Your task to perform on an android device: manage bookmarks in the chrome app Image 0: 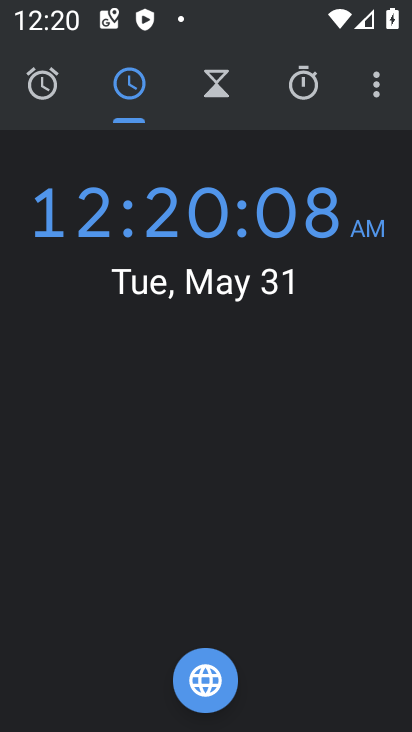
Step 0: press home button
Your task to perform on an android device: manage bookmarks in the chrome app Image 1: 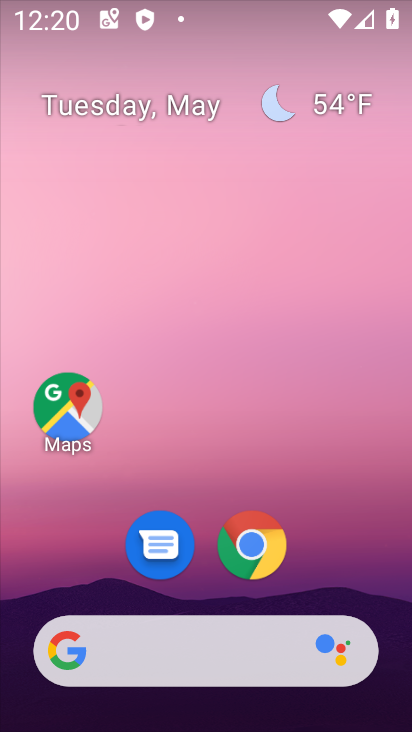
Step 1: click (268, 544)
Your task to perform on an android device: manage bookmarks in the chrome app Image 2: 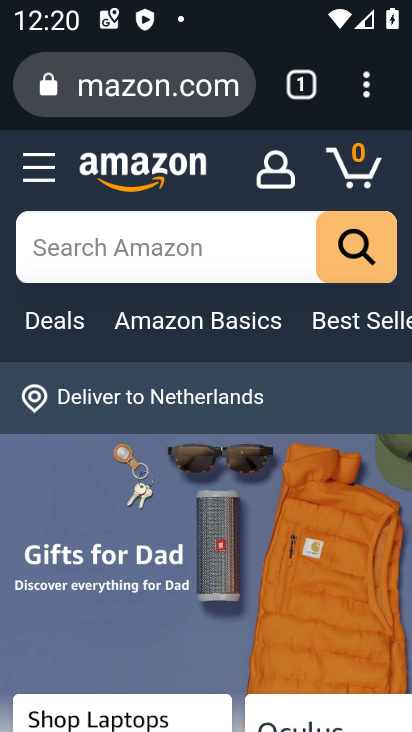
Step 2: click (367, 92)
Your task to perform on an android device: manage bookmarks in the chrome app Image 3: 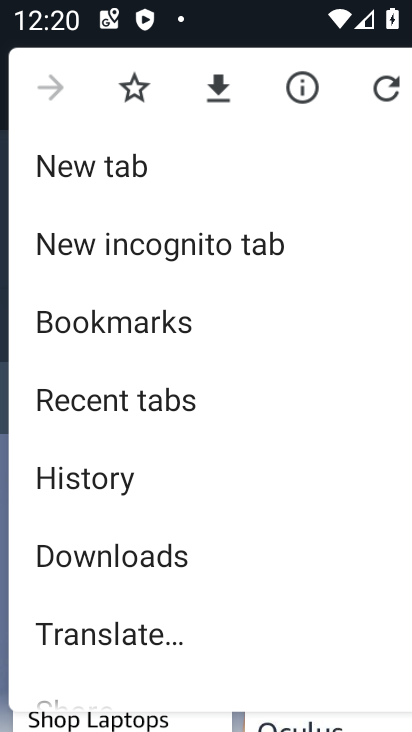
Step 3: drag from (276, 574) to (242, 174)
Your task to perform on an android device: manage bookmarks in the chrome app Image 4: 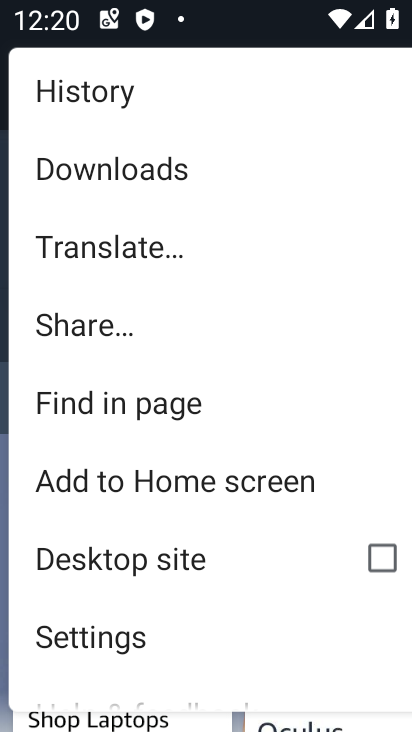
Step 4: click (169, 636)
Your task to perform on an android device: manage bookmarks in the chrome app Image 5: 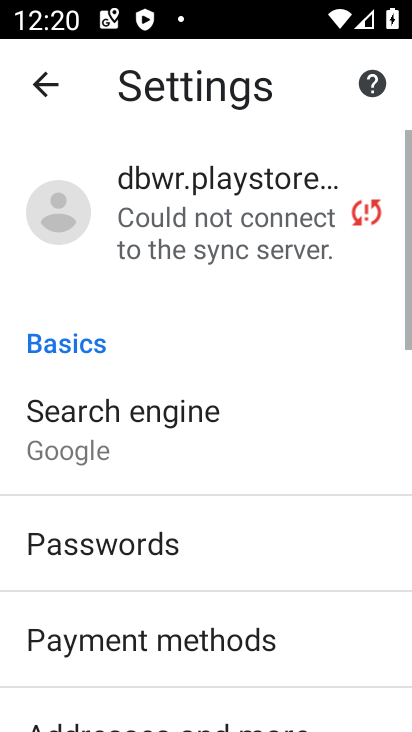
Step 5: drag from (227, 551) to (205, 188)
Your task to perform on an android device: manage bookmarks in the chrome app Image 6: 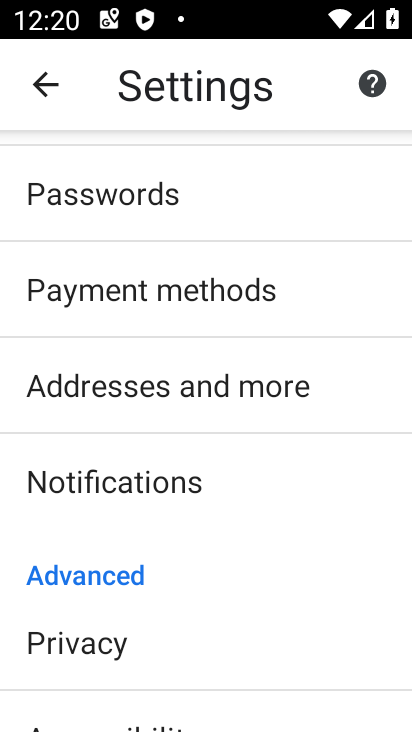
Step 6: click (62, 76)
Your task to perform on an android device: manage bookmarks in the chrome app Image 7: 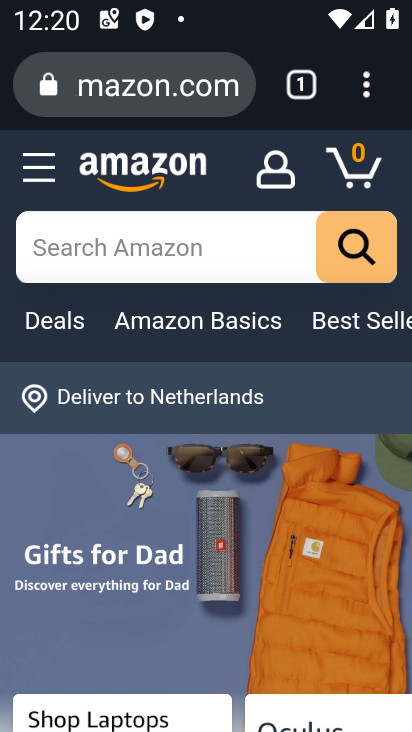
Step 7: click (373, 85)
Your task to perform on an android device: manage bookmarks in the chrome app Image 8: 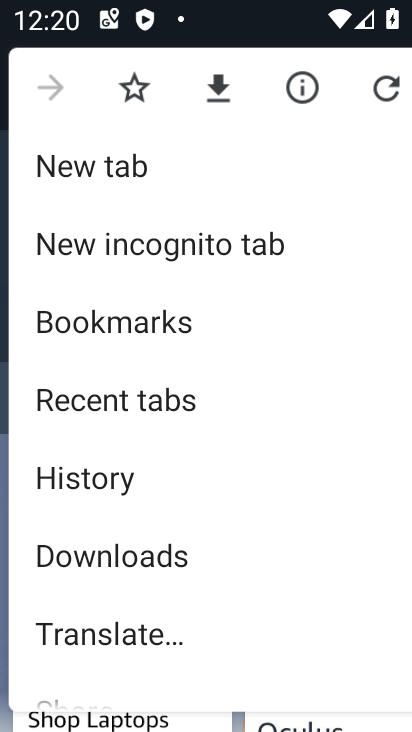
Step 8: click (163, 312)
Your task to perform on an android device: manage bookmarks in the chrome app Image 9: 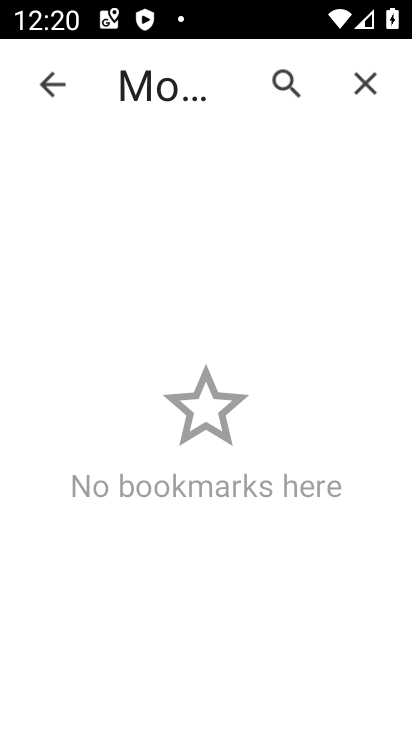
Step 9: task complete